Your task to perform on an android device: Go to Google Image 0: 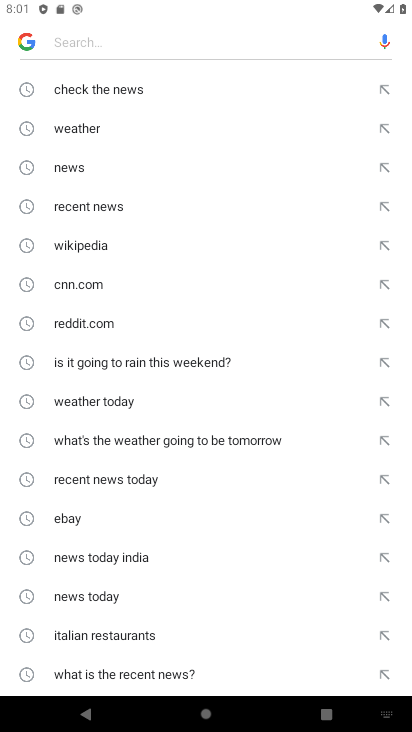
Step 0: press home button
Your task to perform on an android device: Go to Google Image 1: 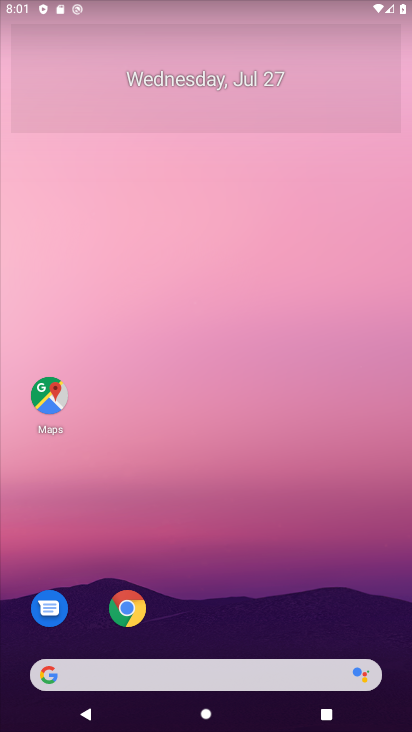
Step 1: click (208, 675)
Your task to perform on an android device: Go to Google Image 2: 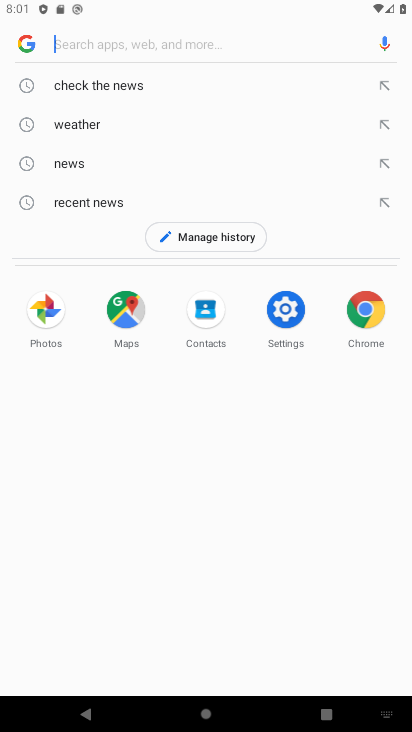
Step 2: task complete